Your task to perform on an android device: Open Android settings Image 0: 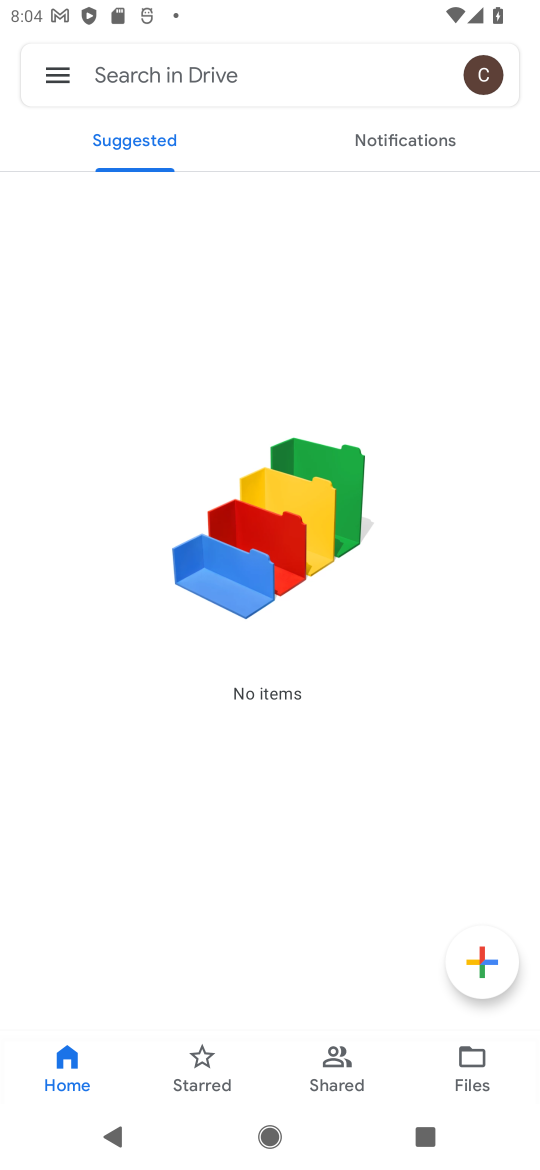
Step 0: press home button
Your task to perform on an android device: Open Android settings Image 1: 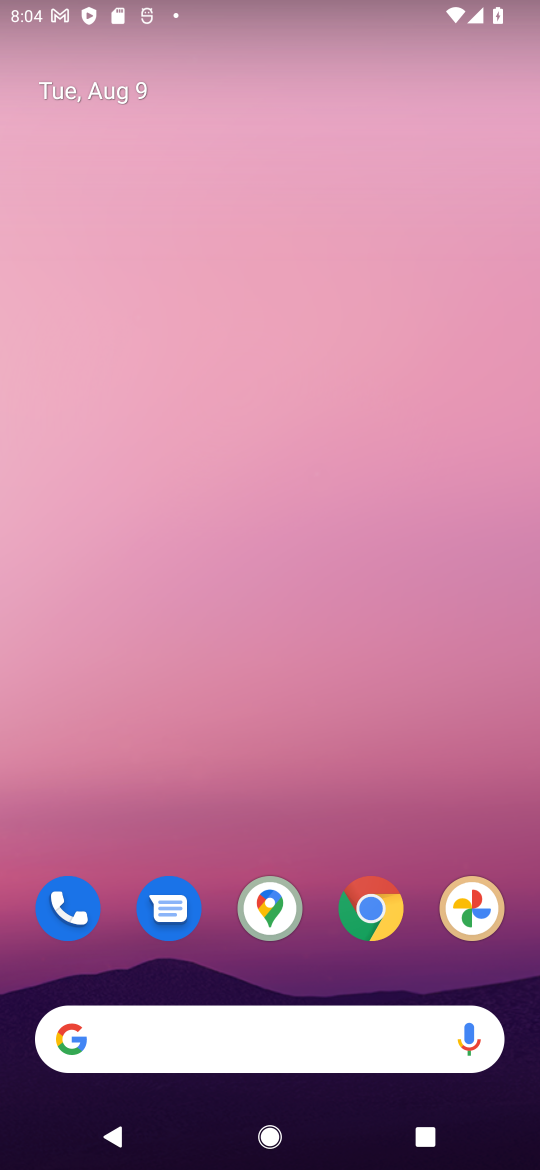
Step 1: drag from (308, 951) to (342, 95)
Your task to perform on an android device: Open Android settings Image 2: 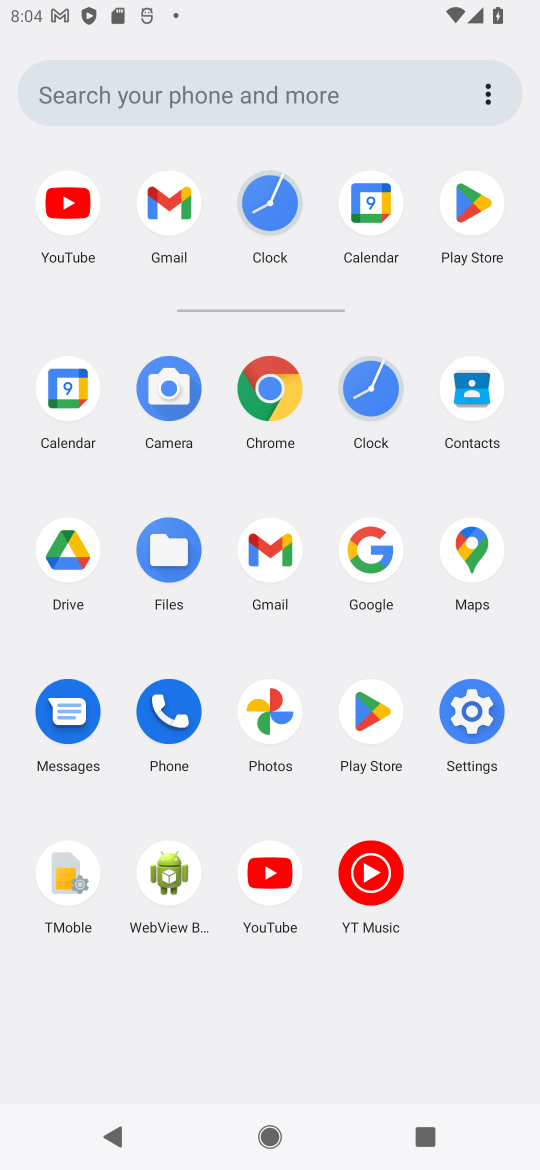
Step 2: click (478, 701)
Your task to perform on an android device: Open Android settings Image 3: 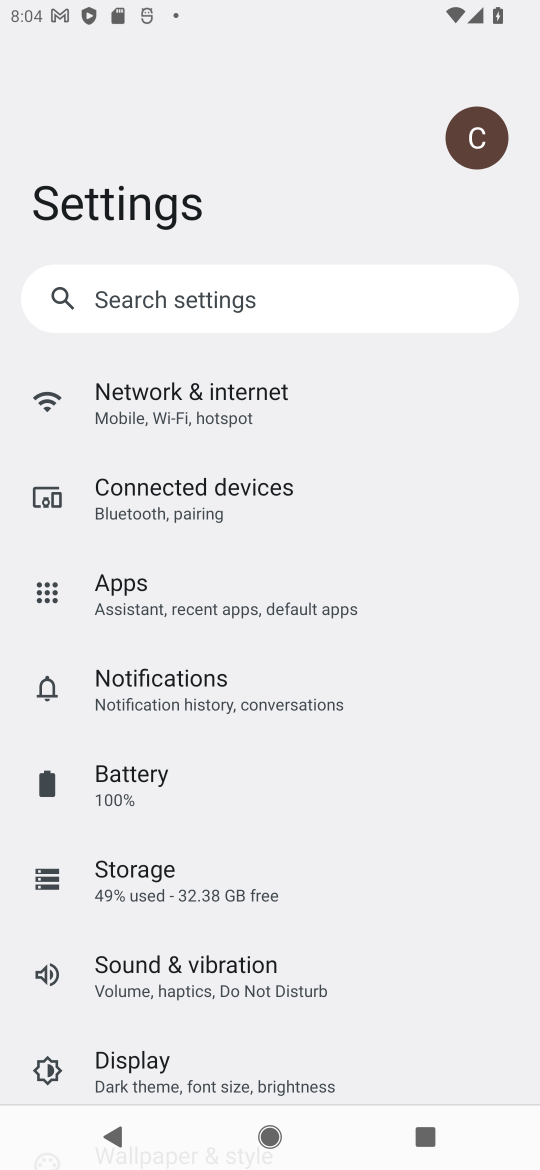
Step 3: task complete